Your task to perform on an android device: remove spam from my inbox in the gmail app Image 0: 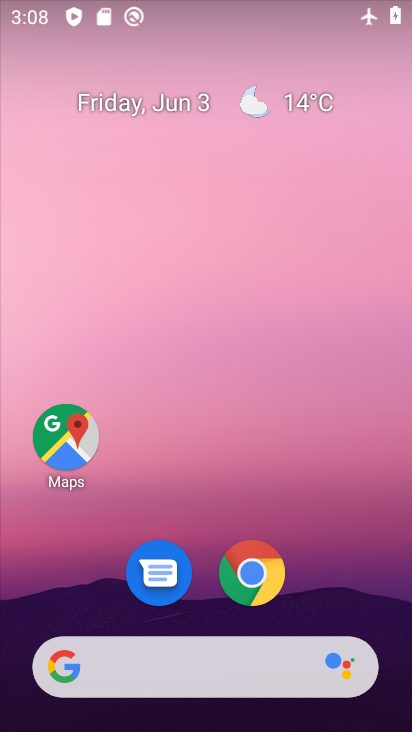
Step 0: drag from (192, 574) to (292, 132)
Your task to perform on an android device: remove spam from my inbox in the gmail app Image 1: 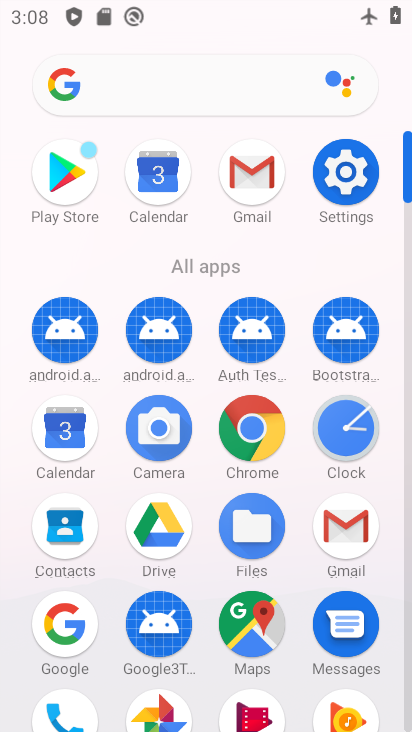
Step 1: drag from (205, 532) to (250, 264)
Your task to perform on an android device: remove spam from my inbox in the gmail app Image 2: 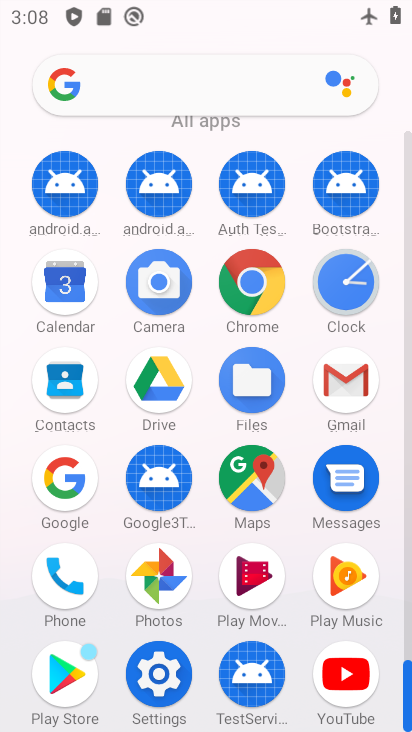
Step 2: click (357, 394)
Your task to perform on an android device: remove spam from my inbox in the gmail app Image 3: 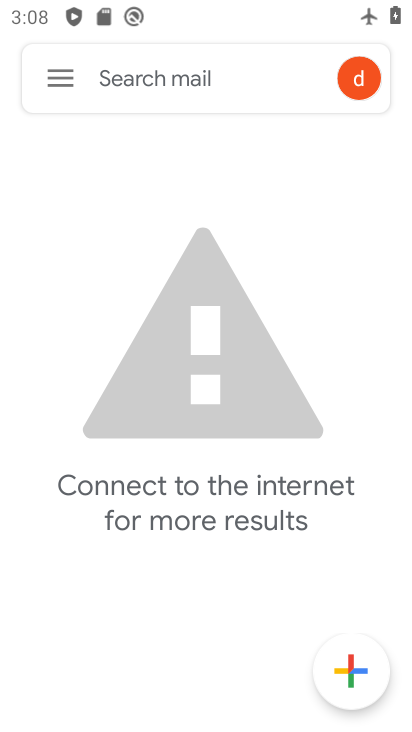
Step 3: click (66, 81)
Your task to perform on an android device: remove spam from my inbox in the gmail app Image 4: 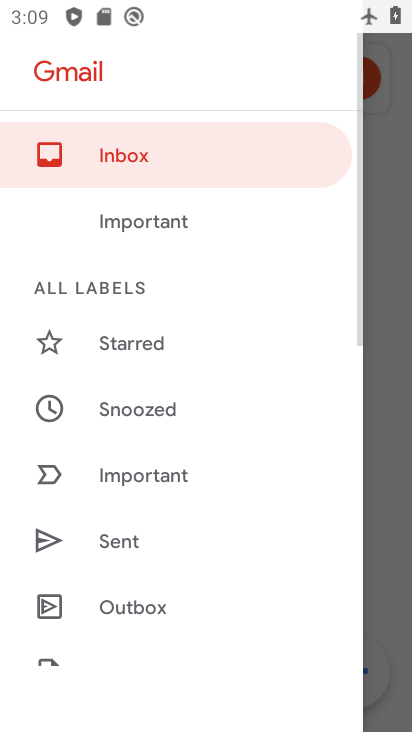
Step 4: task complete